Your task to perform on an android device: turn off airplane mode Image 0: 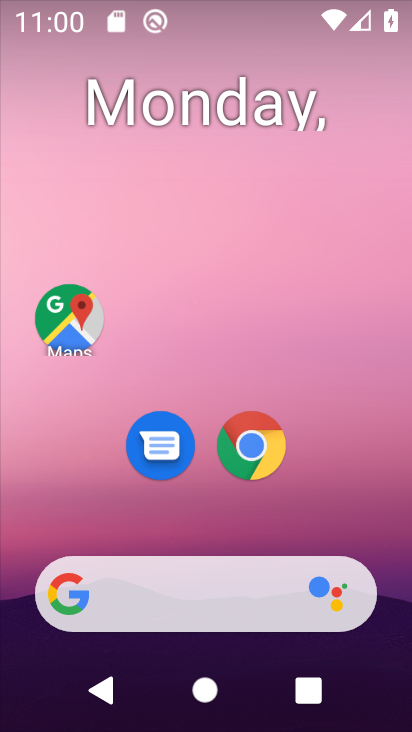
Step 0: drag from (206, 528) to (219, 368)
Your task to perform on an android device: turn off airplane mode Image 1: 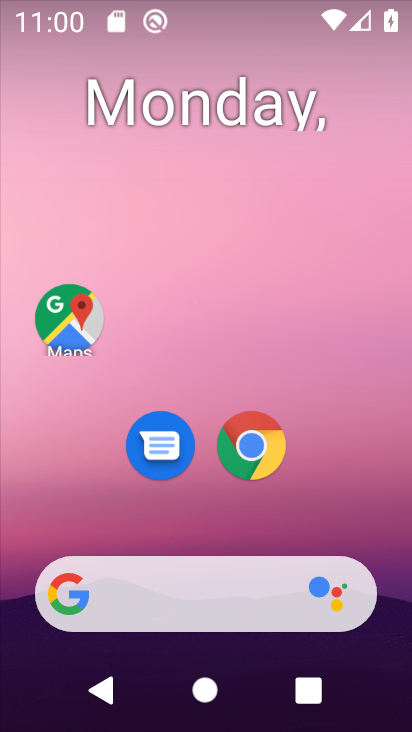
Step 1: drag from (225, 553) to (262, 192)
Your task to perform on an android device: turn off airplane mode Image 2: 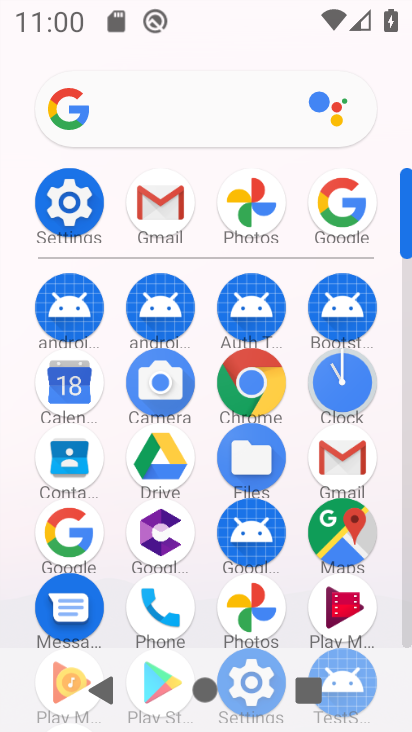
Step 2: click (66, 198)
Your task to perform on an android device: turn off airplane mode Image 3: 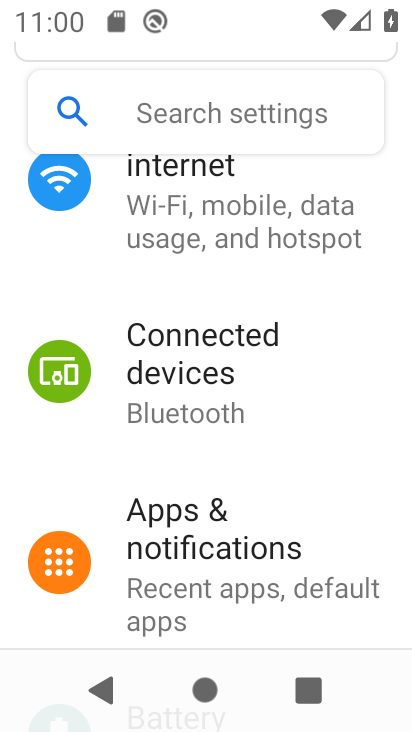
Step 3: drag from (242, 216) to (240, 542)
Your task to perform on an android device: turn off airplane mode Image 4: 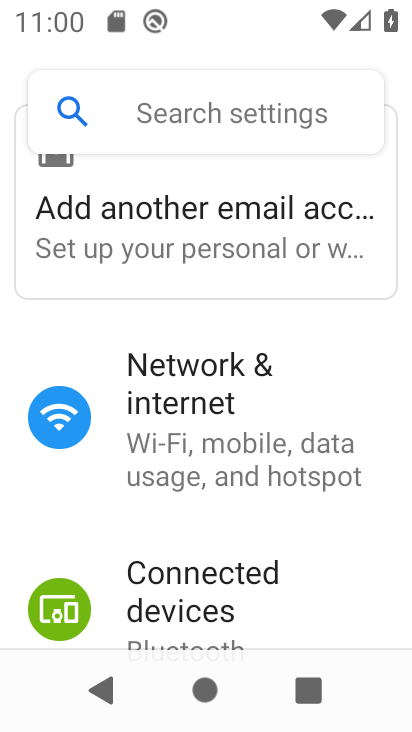
Step 4: click (213, 393)
Your task to perform on an android device: turn off airplane mode Image 5: 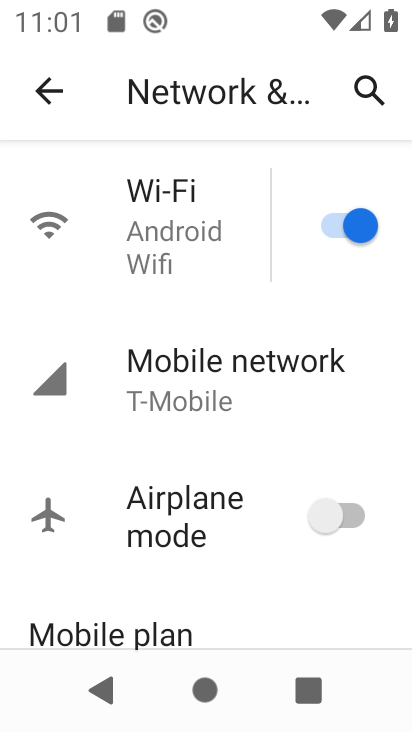
Step 5: task complete